Your task to perform on an android device: Open settings Image 0: 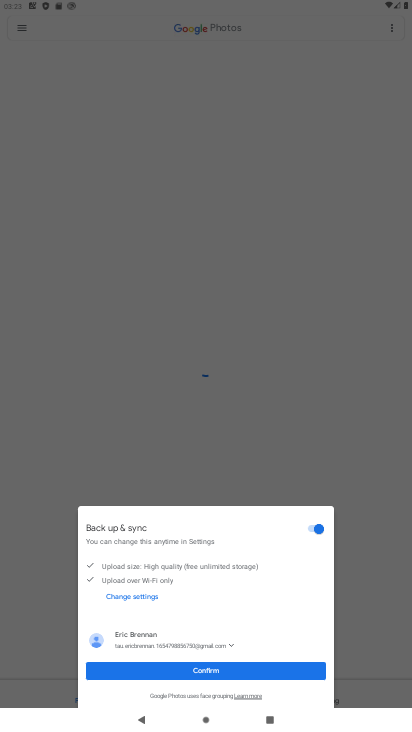
Step 0: press home button
Your task to perform on an android device: Open settings Image 1: 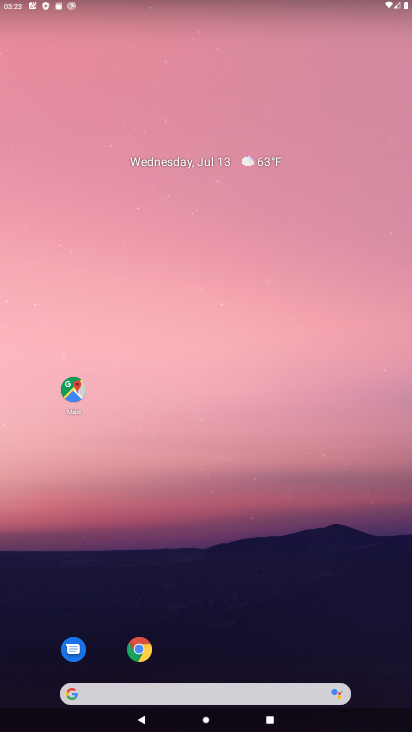
Step 1: drag from (219, 649) to (241, 73)
Your task to perform on an android device: Open settings Image 2: 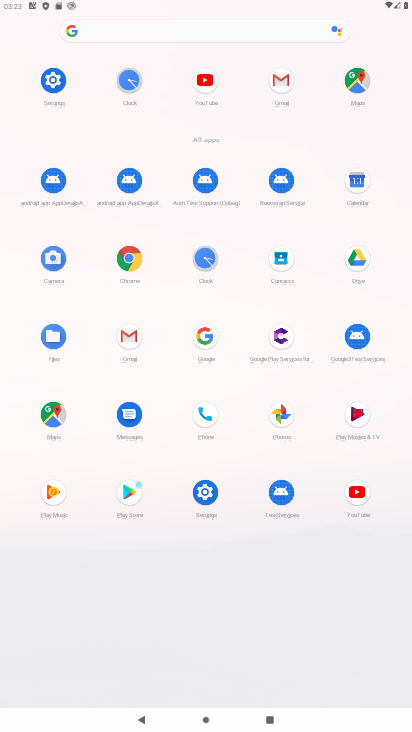
Step 2: click (61, 84)
Your task to perform on an android device: Open settings Image 3: 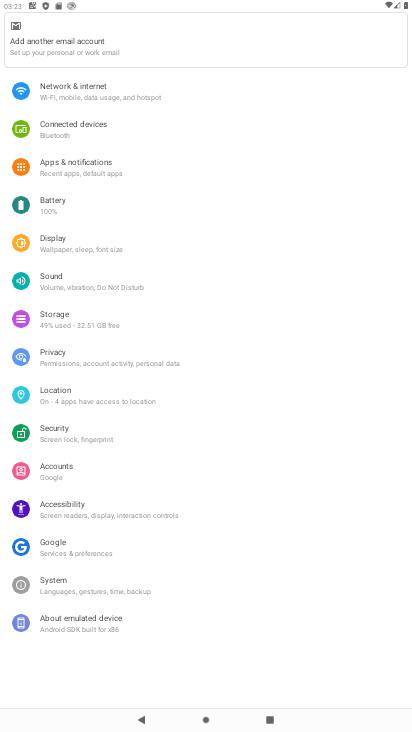
Step 3: task complete